Your task to perform on an android device: Open CNN.com Image 0: 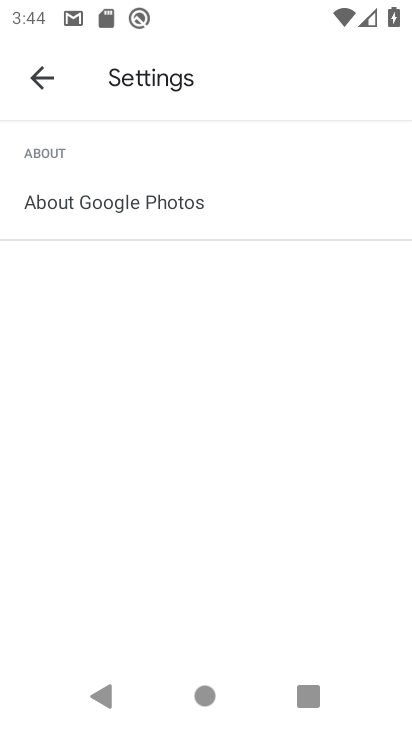
Step 0: press home button
Your task to perform on an android device: Open CNN.com Image 1: 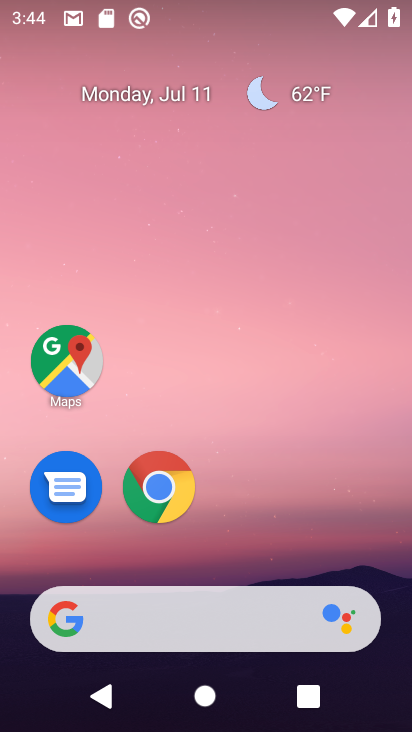
Step 1: click (155, 508)
Your task to perform on an android device: Open CNN.com Image 2: 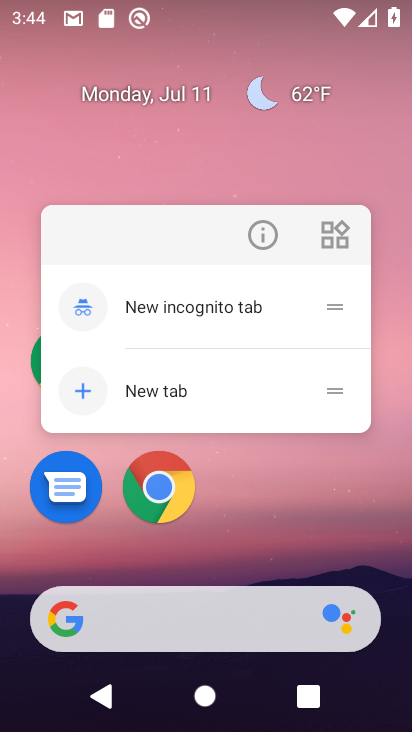
Step 2: click (167, 488)
Your task to perform on an android device: Open CNN.com Image 3: 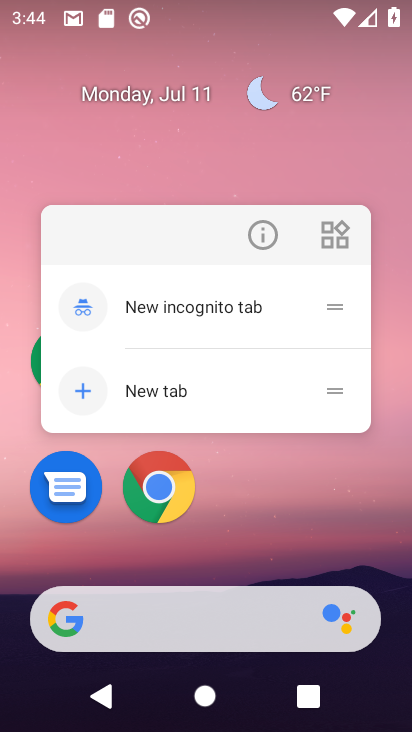
Step 3: click (162, 492)
Your task to perform on an android device: Open CNN.com Image 4: 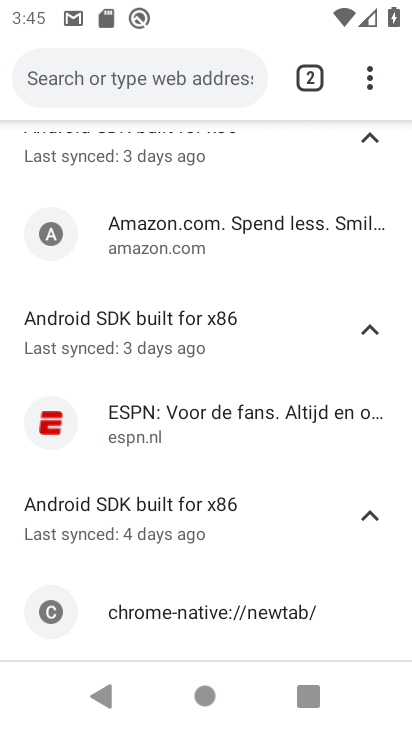
Step 4: drag from (369, 85) to (183, 144)
Your task to perform on an android device: Open CNN.com Image 5: 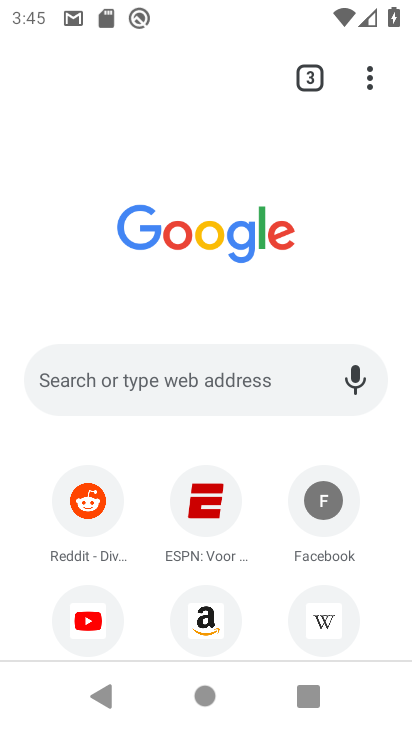
Step 5: drag from (140, 589) to (257, 150)
Your task to perform on an android device: Open CNN.com Image 6: 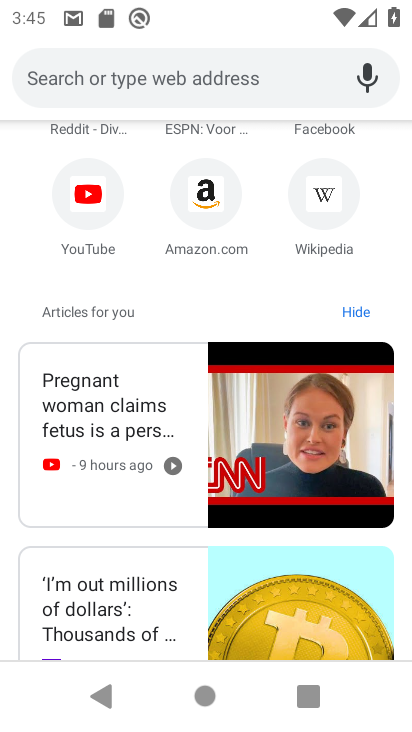
Step 6: drag from (147, 188) to (118, 464)
Your task to perform on an android device: Open CNN.com Image 7: 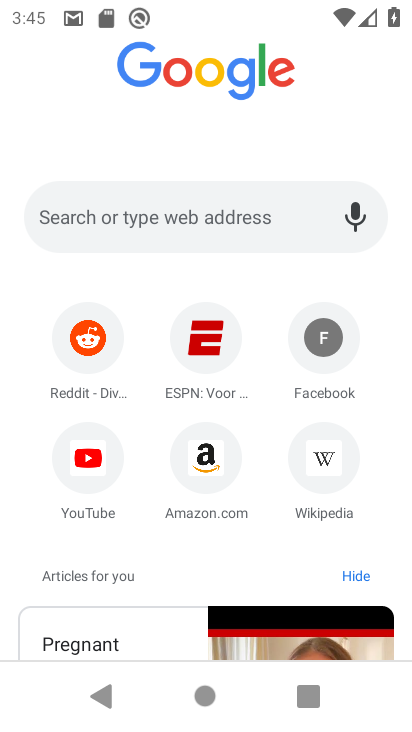
Step 7: click (182, 230)
Your task to perform on an android device: Open CNN.com Image 8: 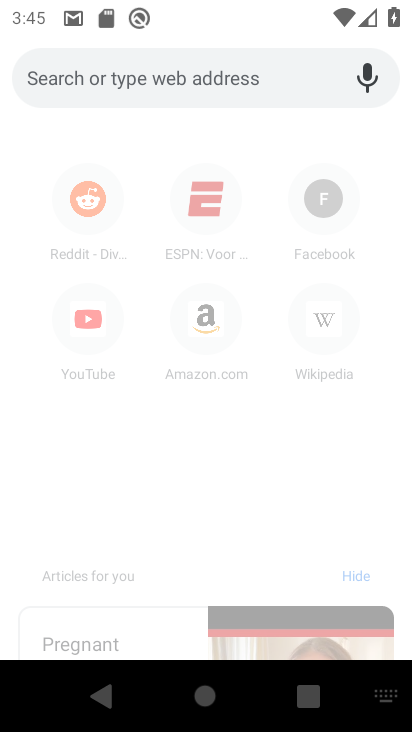
Step 8: type "cnn.com"
Your task to perform on an android device: Open CNN.com Image 9: 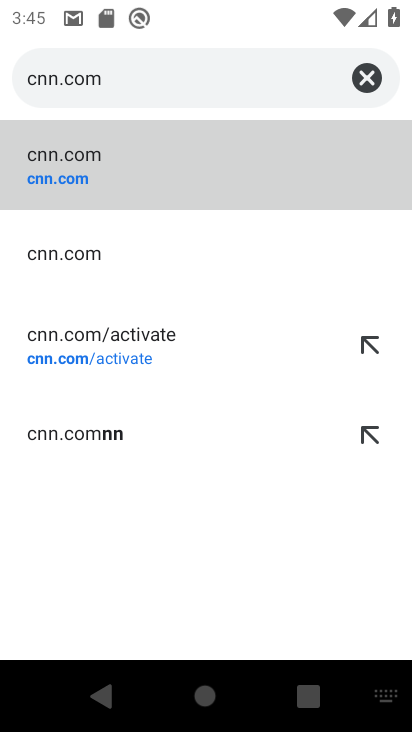
Step 9: click (79, 157)
Your task to perform on an android device: Open CNN.com Image 10: 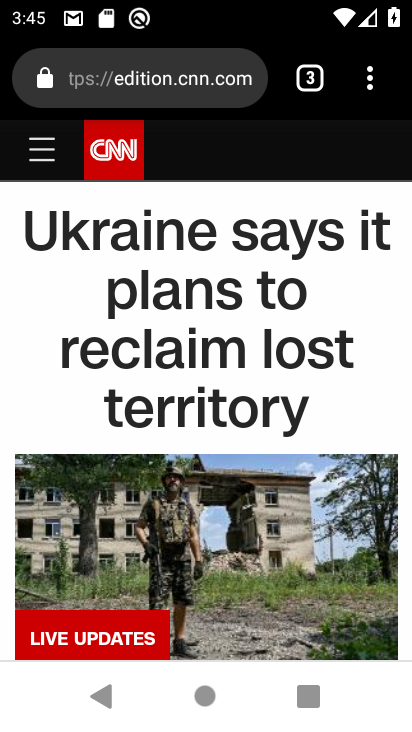
Step 10: drag from (242, 634) to (354, 125)
Your task to perform on an android device: Open CNN.com Image 11: 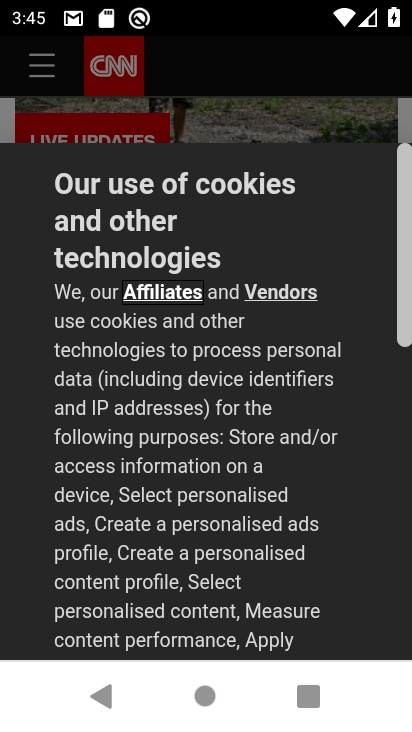
Step 11: drag from (202, 585) to (323, 105)
Your task to perform on an android device: Open CNN.com Image 12: 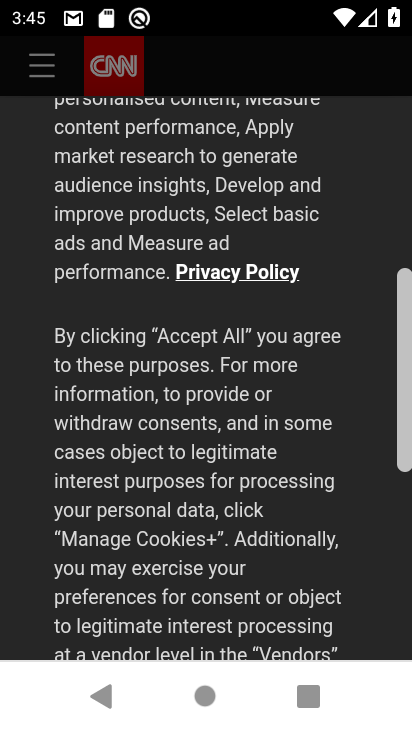
Step 12: drag from (288, 607) to (411, 72)
Your task to perform on an android device: Open CNN.com Image 13: 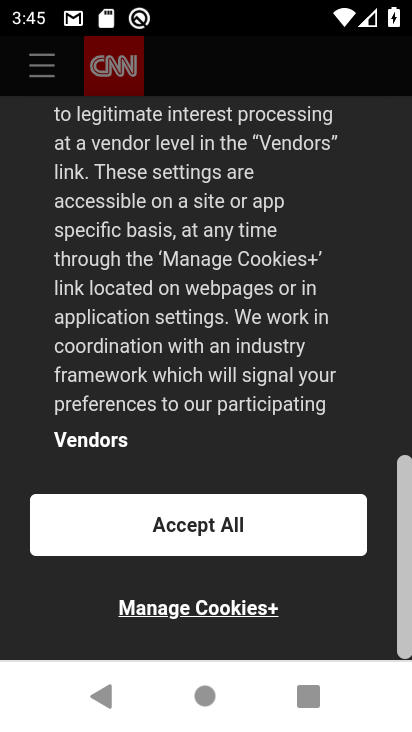
Step 13: click (234, 533)
Your task to perform on an android device: Open CNN.com Image 14: 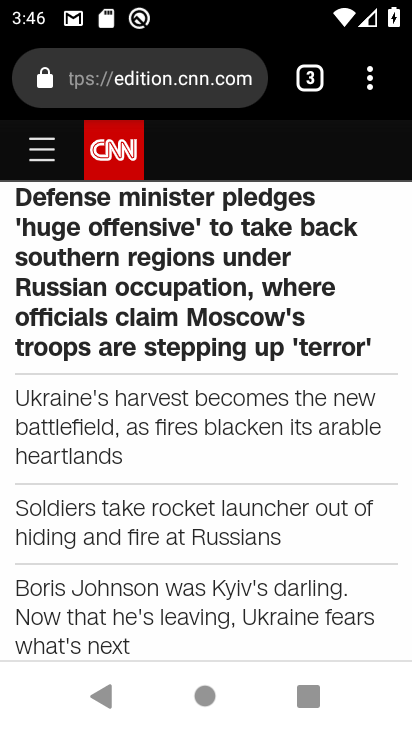
Step 14: task complete